Your task to perform on an android device: allow notifications from all sites in the chrome app Image 0: 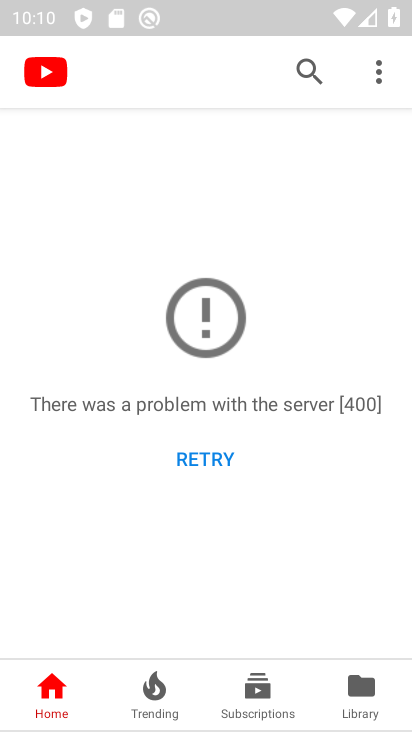
Step 0: press home button
Your task to perform on an android device: allow notifications from all sites in the chrome app Image 1: 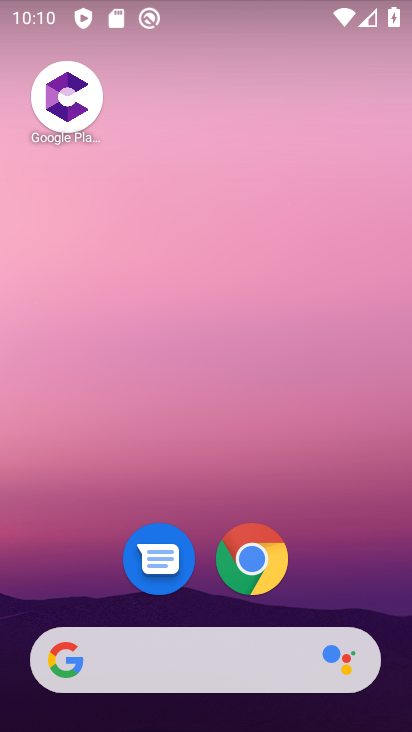
Step 1: drag from (205, 596) to (246, 98)
Your task to perform on an android device: allow notifications from all sites in the chrome app Image 2: 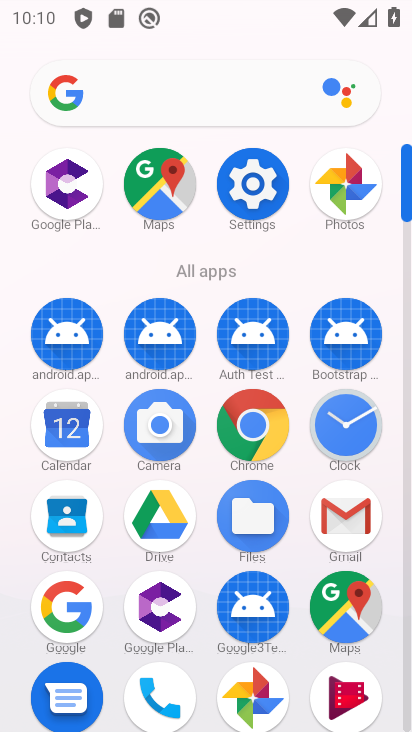
Step 2: click (262, 414)
Your task to perform on an android device: allow notifications from all sites in the chrome app Image 3: 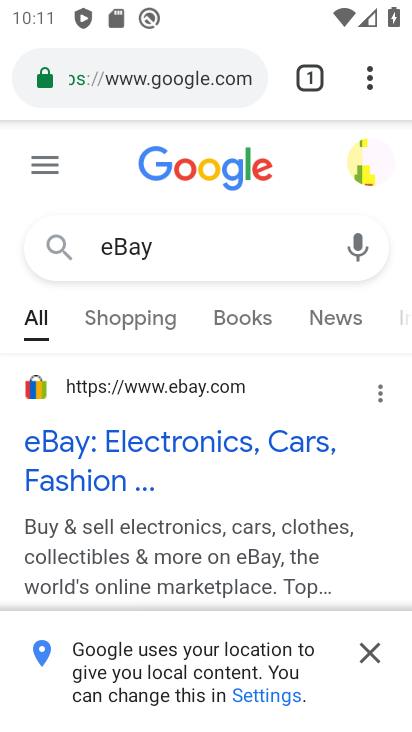
Step 3: click (365, 651)
Your task to perform on an android device: allow notifications from all sites in the chrome app Image 4: 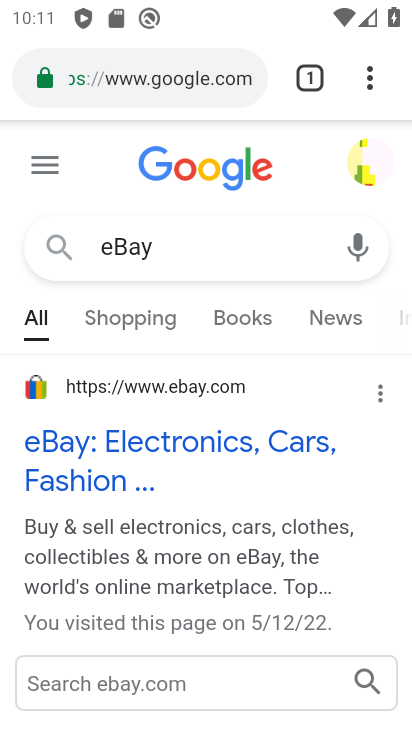
Step 4: click (377, 85)
Your task to perform on an android device: allow notifications from all sites in the chrome app Image 5: 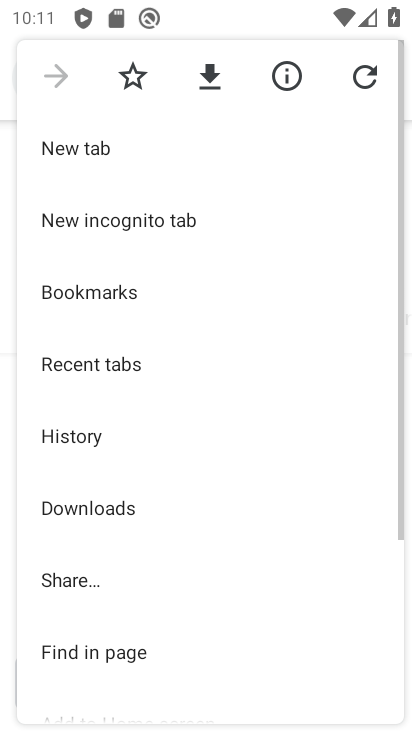
Step 5: drag from (116, 541) to (189, 205)
Your task to perform on an android device: allow notifications from all sites in the chrome app Image 6: 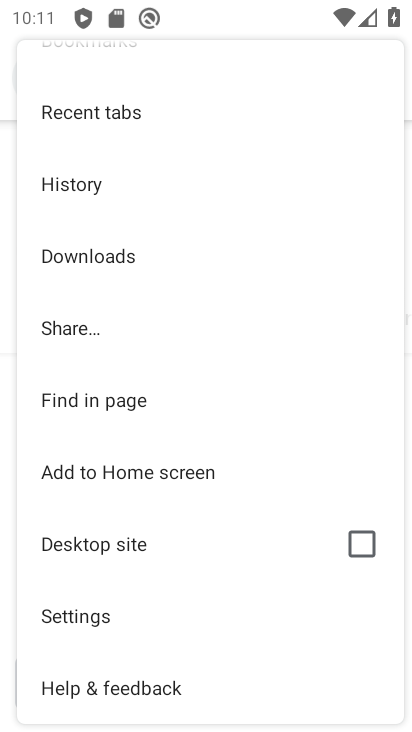
Step 6: click (82, 616)
Your task to perform on an android device: allow notifications from all sites in the chrome app Image 7: 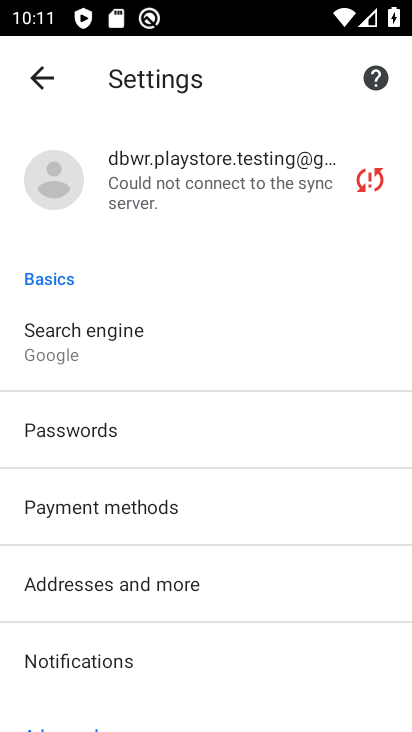
Step 7: drag from (108, 546) to (162, 259)
Your task to perform on an android device: allow notifications from all sites in the chrome app Image 8: 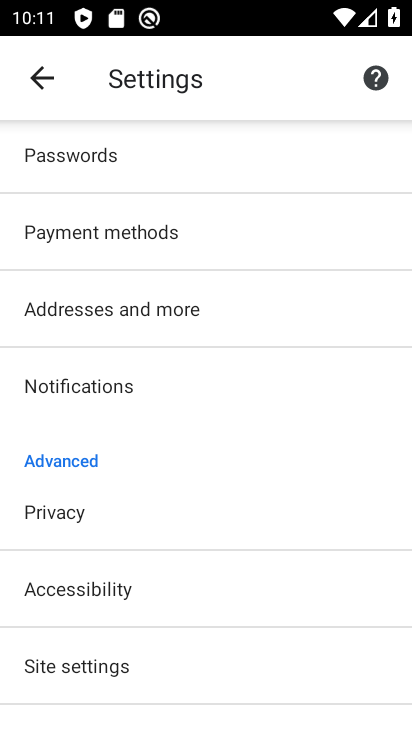
Step 8: drag from (101, 604) to (118, 499)
Your task to perform on an android device: allow notifications from all sites in the chrome app Image 9: 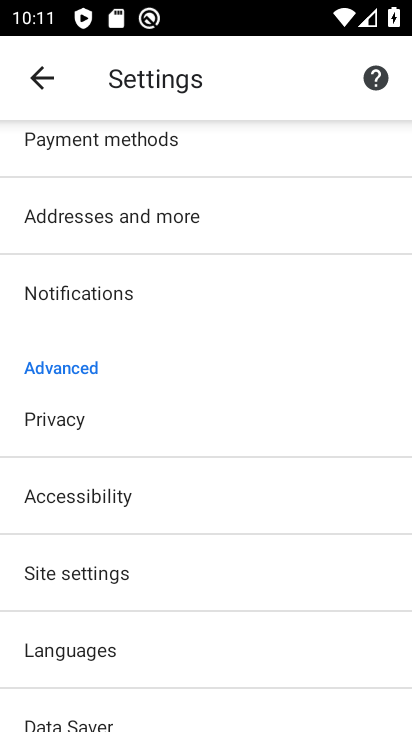
Step 9: click (116, 308)
Your task to perform on an android device: allow notifications from all sites in the chrome app Image 10: 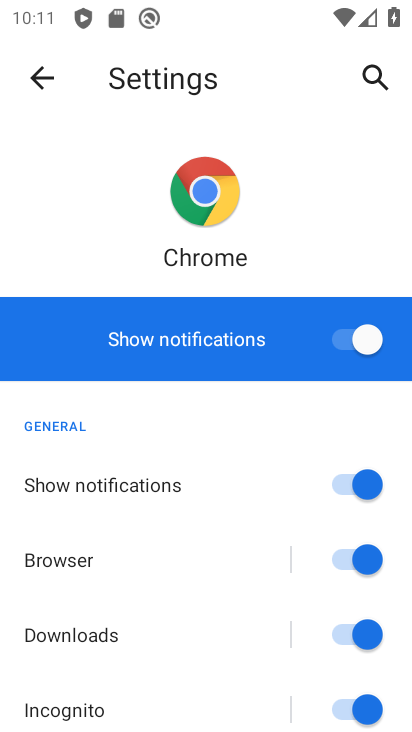
Step 10: task complete